Your task to perform on an android device: change the clock display to analog Image 0: 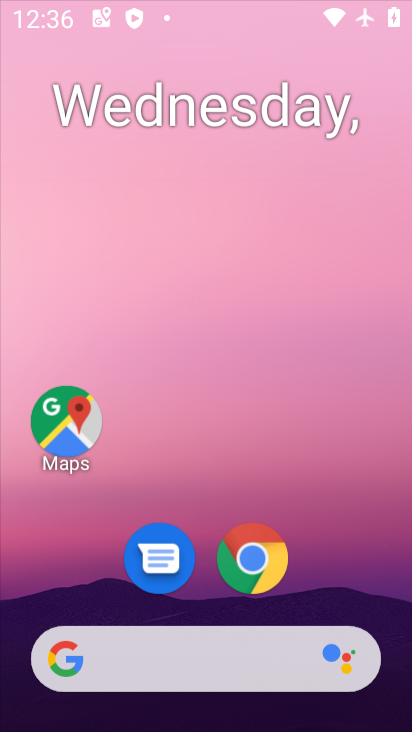
Step 0: press back button
Your task to perform on an android device: change the clock display to analog Image 1: 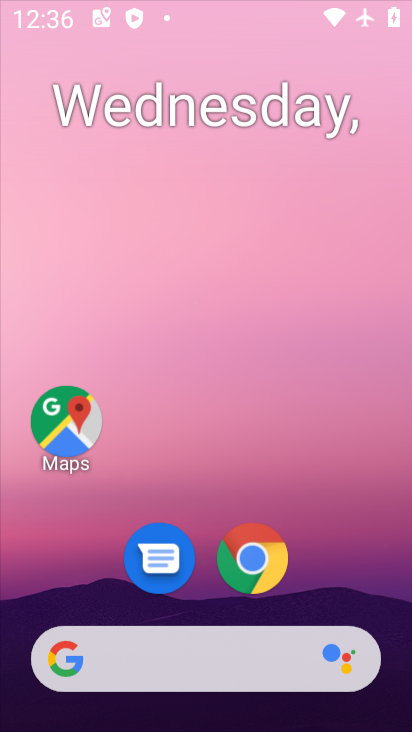
Step 1: click (73, 146)
Your task to perform on an android device: change the clock display to analog Image 2: 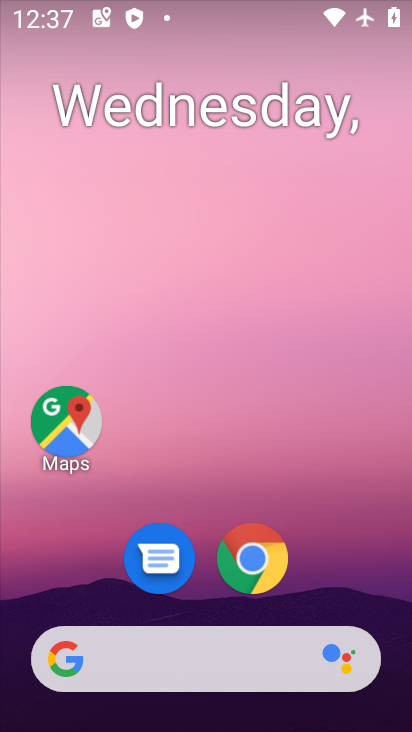
Step 2: drag from (231, 650) to (106, 56)
Your task to perform on an android device: change the clock display to analog Image 3: 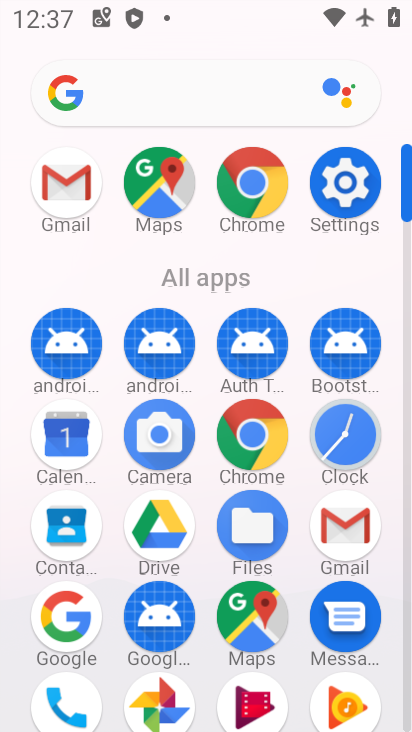
Step 3: click (347, 444)
Your task to perform on an android device: change the clock display to analog Image 4: 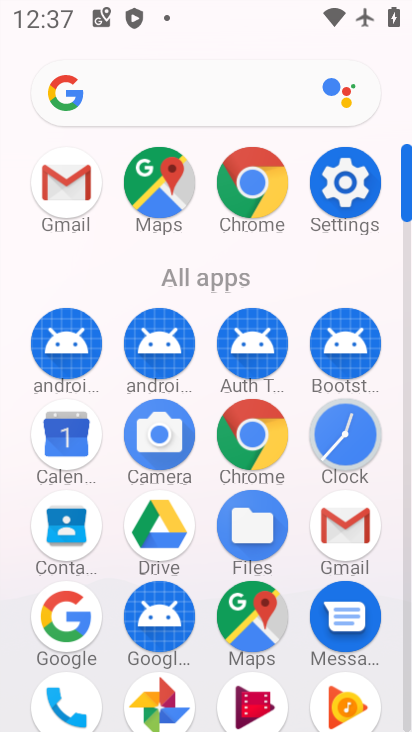
Step 4: click (347, 443)
Your task to perform on an android device: change the clock display to analog Image 5: 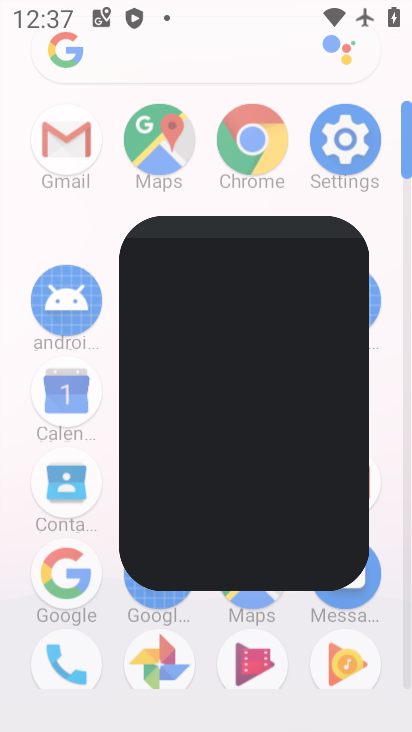
Step 5: click (346, 416)
Your task to perform on an android device: change the clock display to analog Image 6: 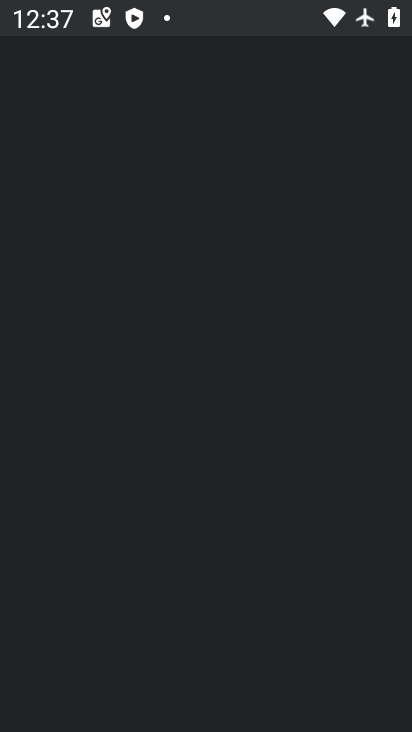
Step 6: click (346, 437)
Your task to perform on an android device: change the clock display to analog Image 7: 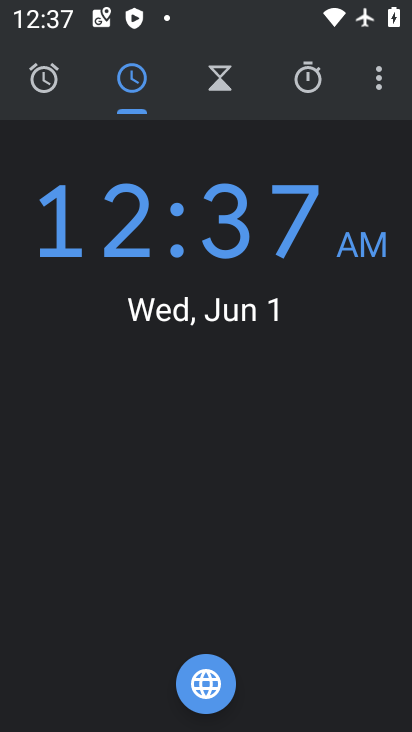
Step 7: press back button
Your task to perform on an android device: change the clock display to analog Image 8: 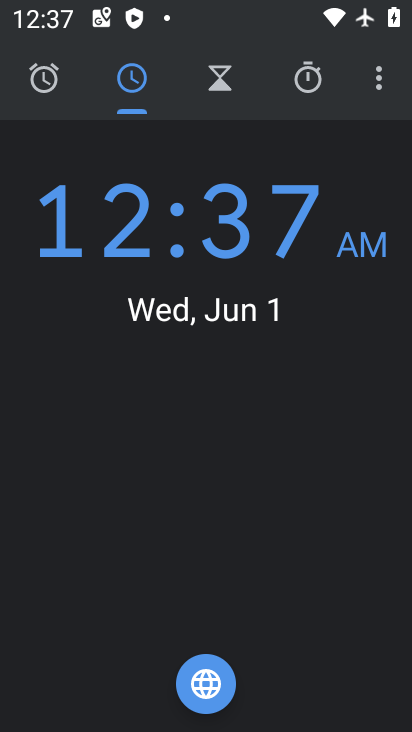
Step 8: press back button
Your task to perform on an android device: change the clock display to analog Image 9: 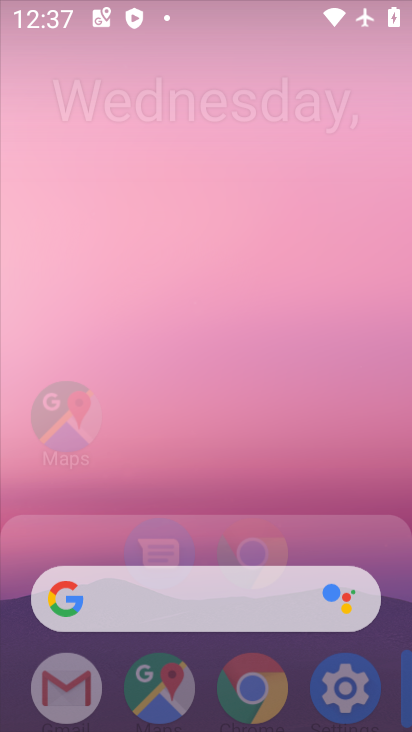
Step 9: press back button
Your task to perform on an android device: change the clock display to analog Image 10: 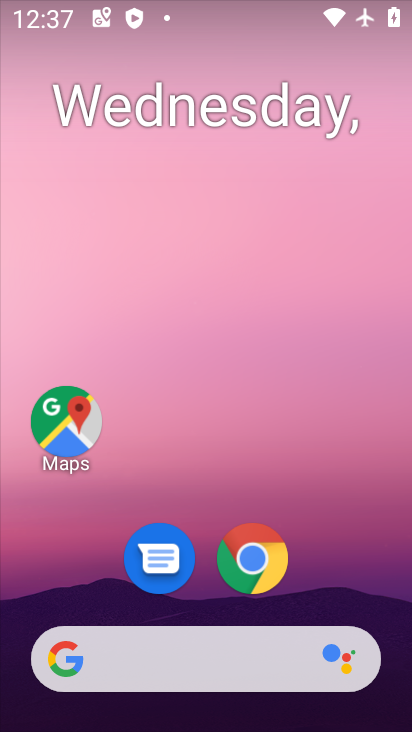
Step 10: drag from (233, 459) to (164, 48)
Your task to perform on an android device: change the clock display to analog Image 11: 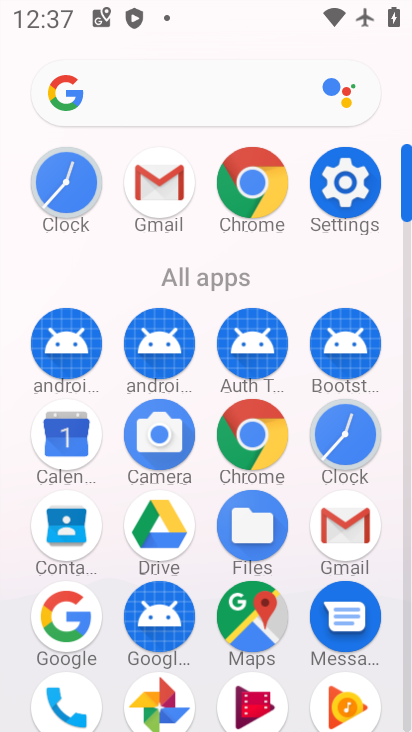
Step 11: click (348, 442)
Your task to perform on an android device: change the clock display to analog Image 12: 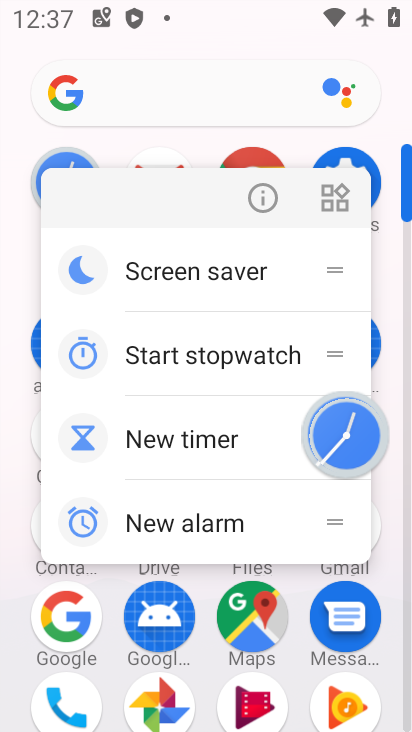
Step 12: click (349, 441)
Your task to perform on an android device: change the clock display to analog Image 13: 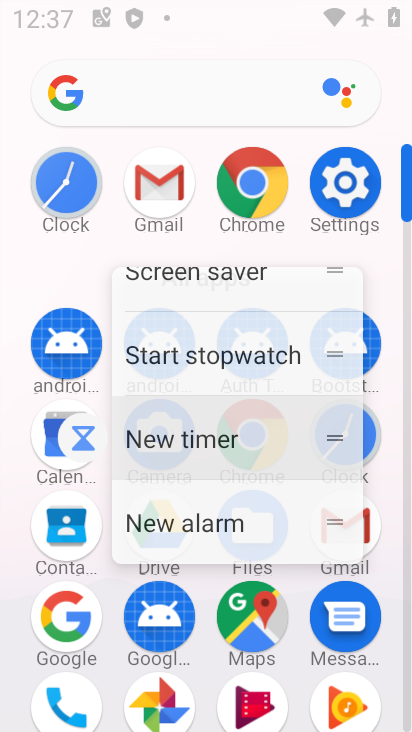
Step 13: click (344, 443)
Your task to perform on an android device: change the clock display to analog Image 14: 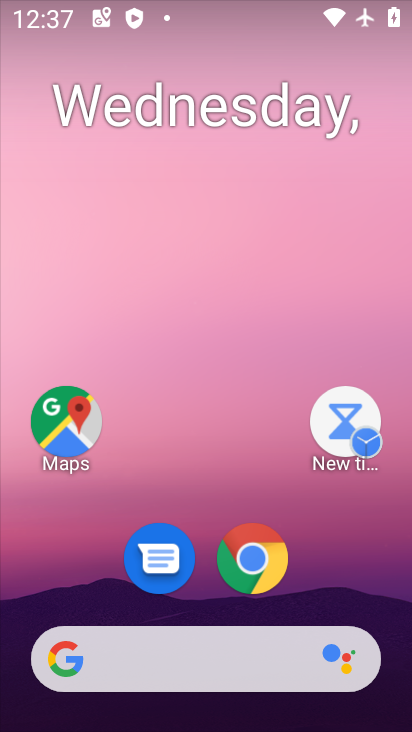
Step 14: drag from (251, 690) to (125, 84)
Your task to perform on an android device: change the clock display to analog Image 15: 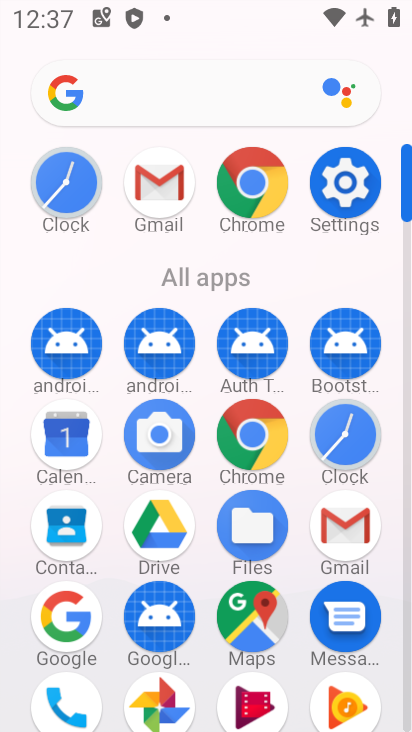
Step 15: click (344, 416)
Your task to perform on an android device: change the clock display to analog Image 16: 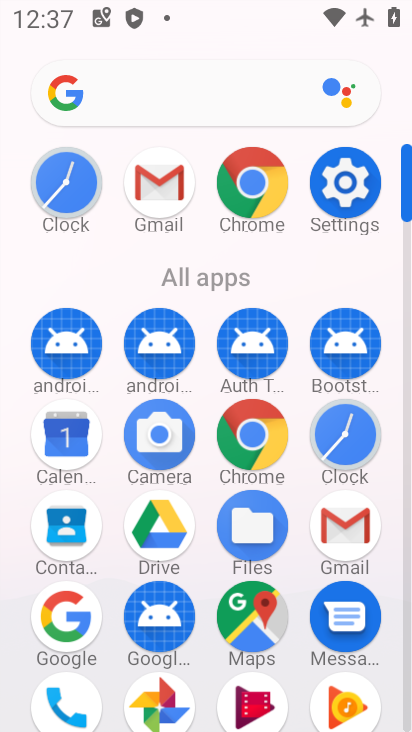
Step 16: drag from (345, 417) to (336, 465)
Your task to perform on an android device: change the clock display to analog Image 17: 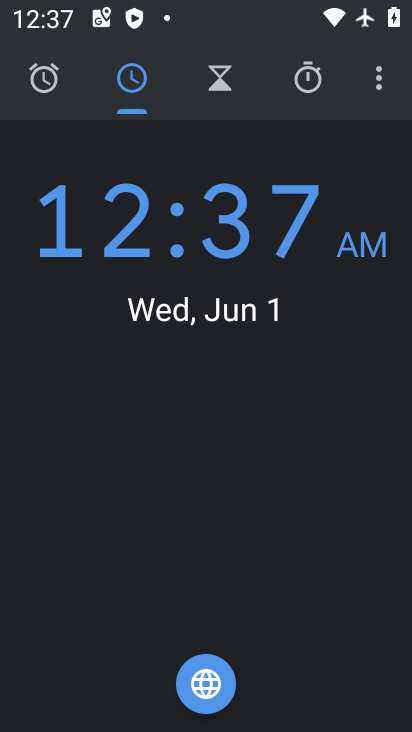
Step 17: drag from (380, 88) to (188, 166)
Your task to perform on an android device: change the clock display to analog Image 18: 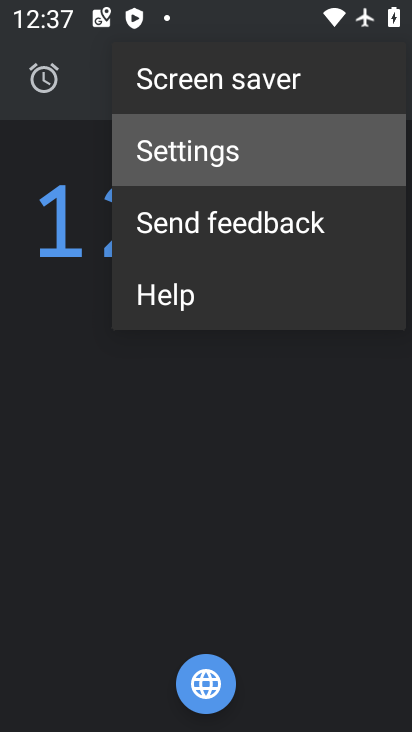
Step 18: click (188, 165)
Your task to perform on an android device: change the clock display to analog Image 19: 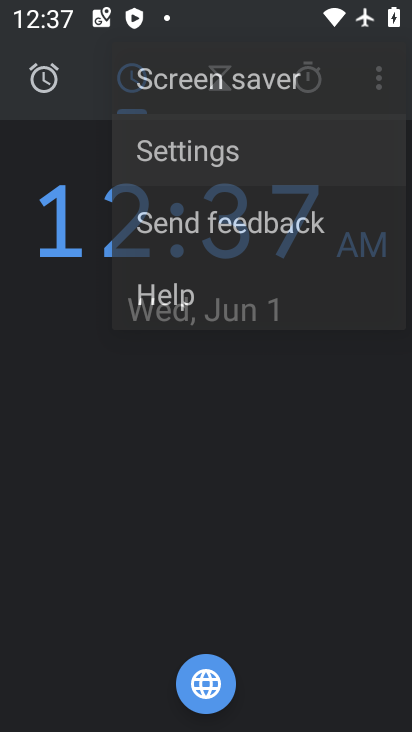
Step 19: click (189, 163)
Your task to perform on an android device: change the clock display to analog Image 20: 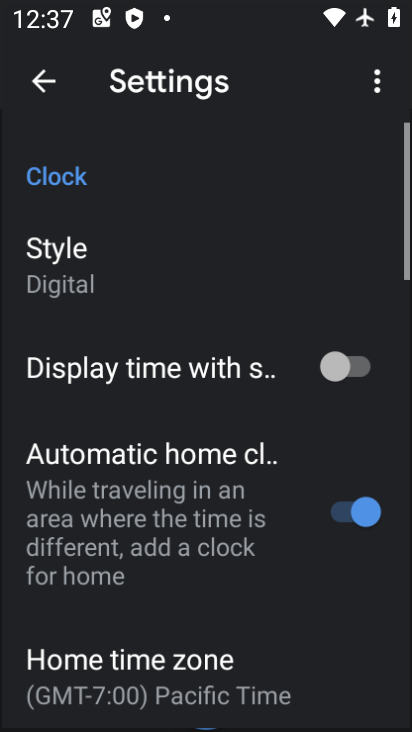
Step 20: click (189, 162)
Your task to perform on an android device: change the clock display to analog Image 21: 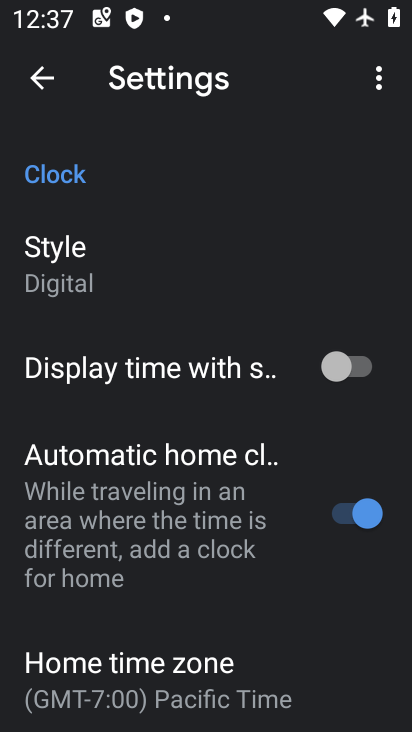
Step 21: click (117, 242)
Your task to perform on an android device: change the clock display to analog Image 22: 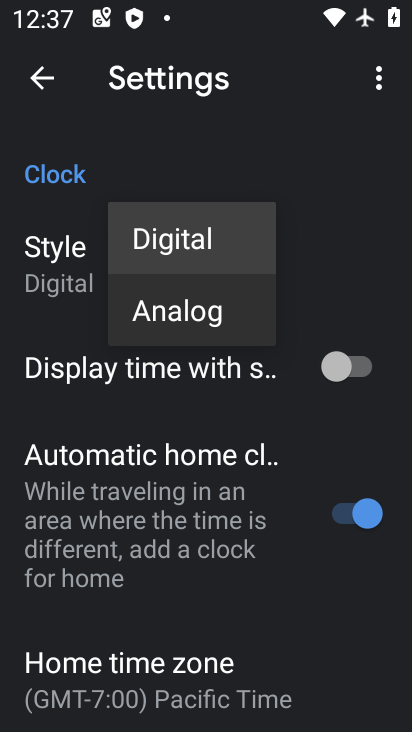
Step 22: click (203, 316)
Your task to perform on an android device: change the clock display to analog Image 23: 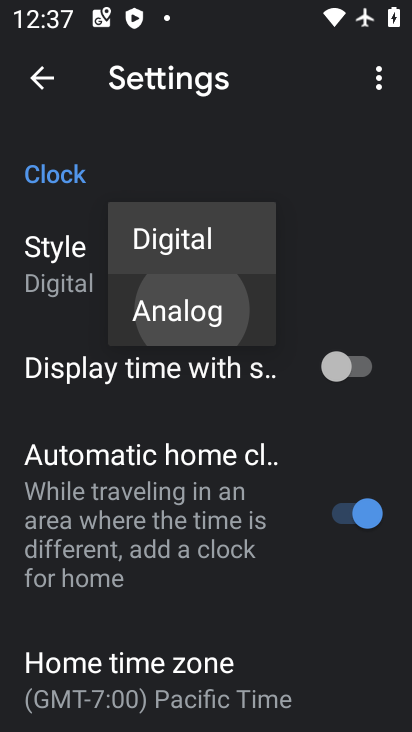
Step 23: click (203, 316)
Your task to perform on an android device: change the clock display to analog Image 24: 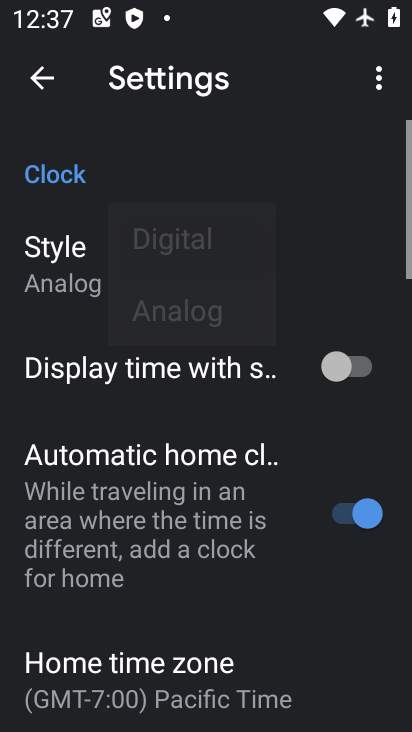
Step 24: click (203, 316)
Your task to perform on an android device: change the clock display to analog Image 25: 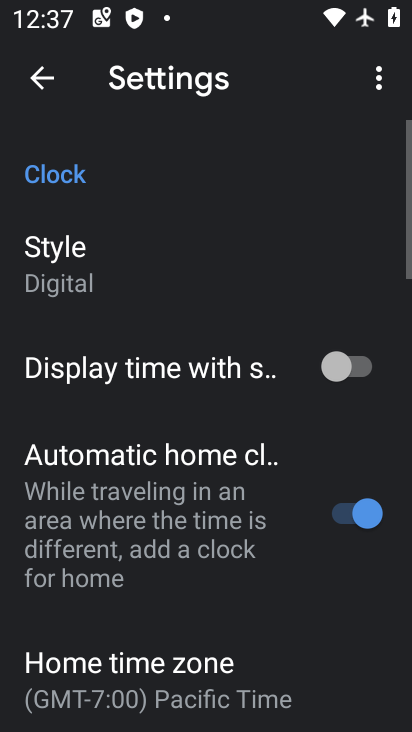
Step 25: task complete